Your task to perform on an android device: set an alarm Image 0: 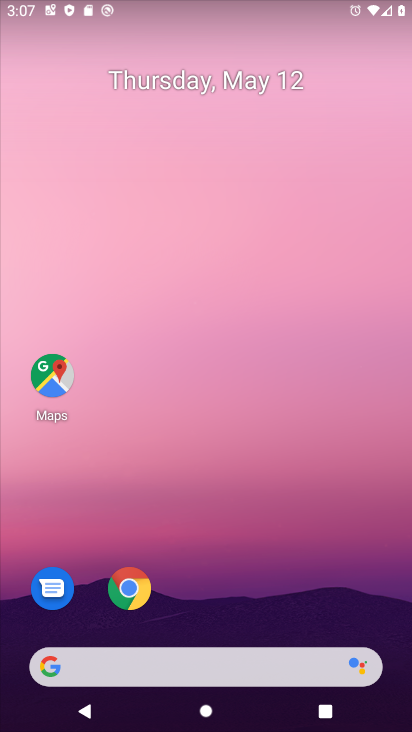
Step 0: drag from (239, 567) to (196, 16)
Your task to perform on an android device: set an alarm Image 1: 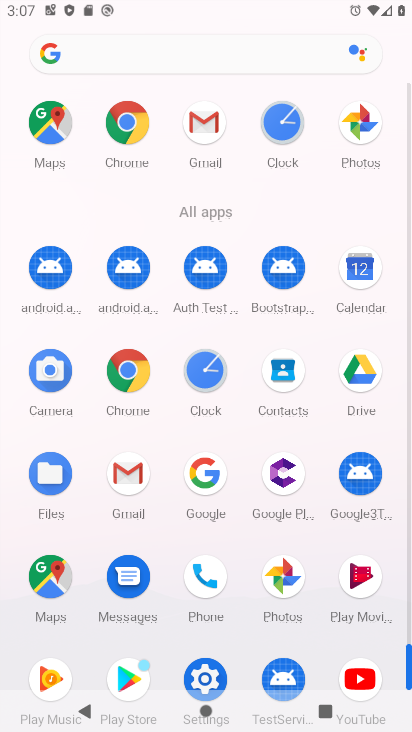
Step 1: drag from (15, 502) to (16, 160)
Your task to perform on an android device: set an alarm Image 2: 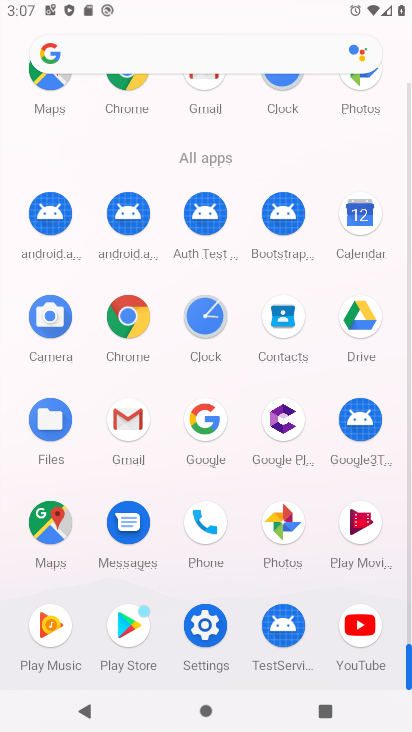
Step 2: click (202, 311)
Your task to perform on an android device: set an alarm Image 3: 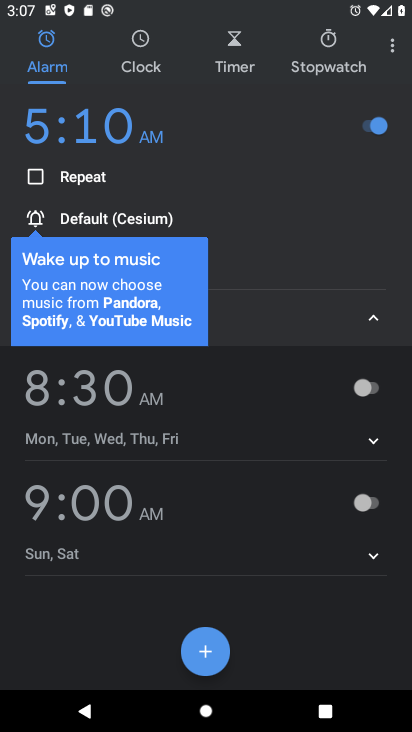
Step 3: click (211, 650)
Your task to perform on an android device: set an alarm Image 4: 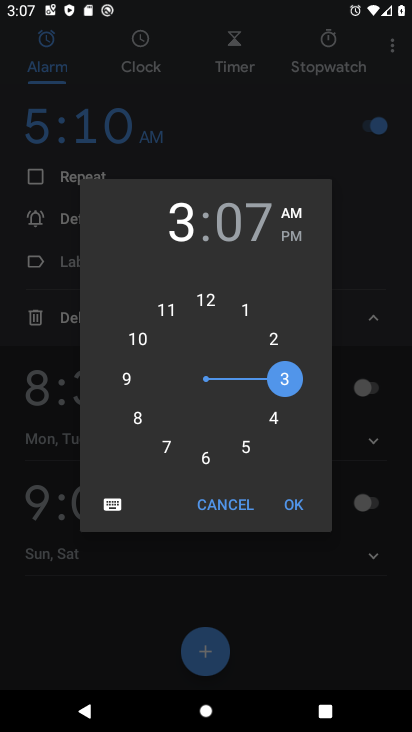
Step 4: click (131, 378)
Your task to perform on an android device: set an alarm Image 5: 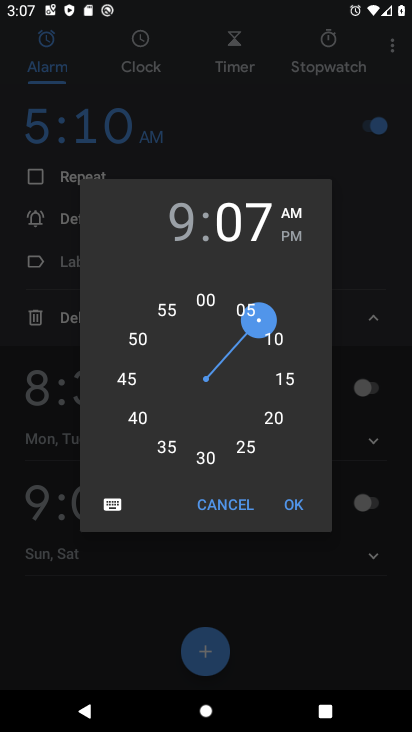
Step 5: click (148, 418)
Your task to perform on an android device: set an alarm Image 6: 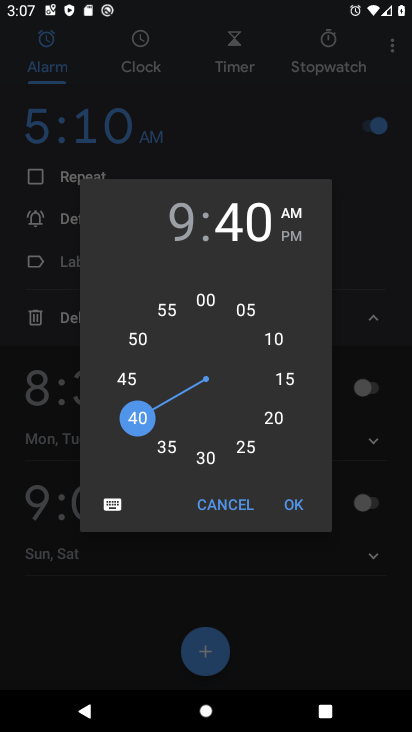
Step 6: click (285, 507)
Your task to perform on an android device: set an alarm Image 7: 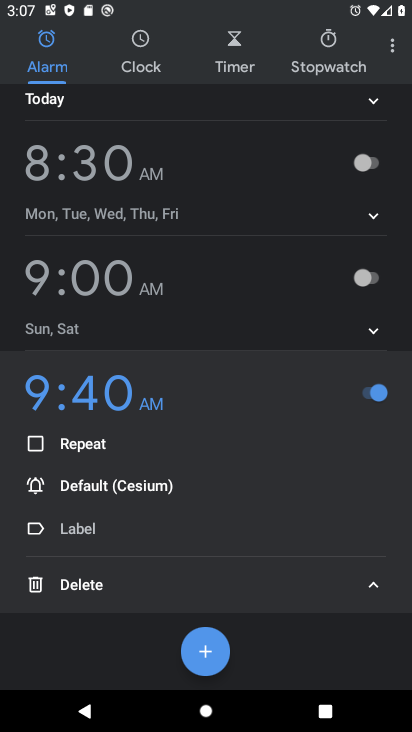
Step 7: task complete